Your task to perform on an android device: turn off improve location accuracy Image 0: 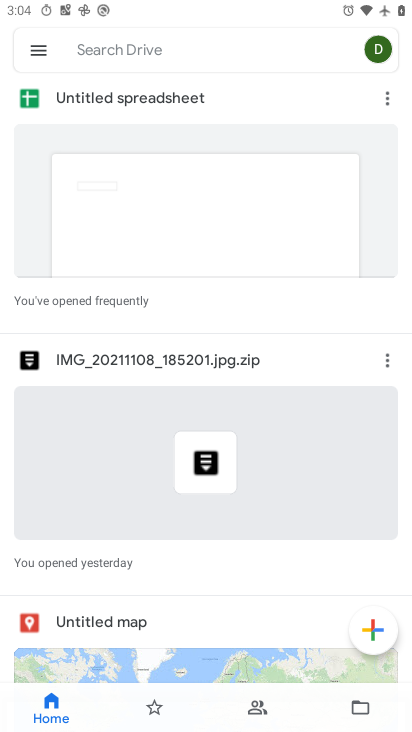
Step 0: press home button
Your task to perform on an android device: turn off improve location accuracy Image 1: 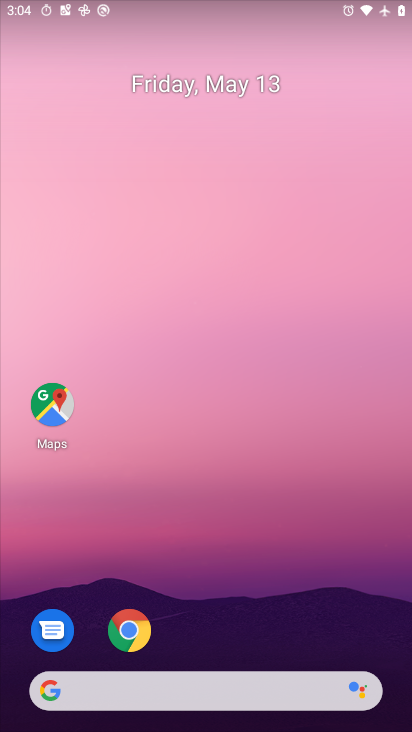
Step 1: drag from (209, 604) to (264, 157)
Your task to perform on an android device: turn off improve location accuracy Image 2: 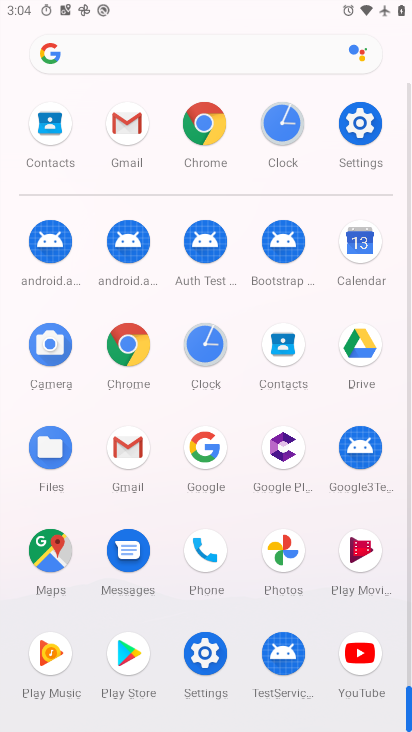
Step 2: click (201, 670)
Your task to perform on an android device: turn off improve location accuracy Image 3: 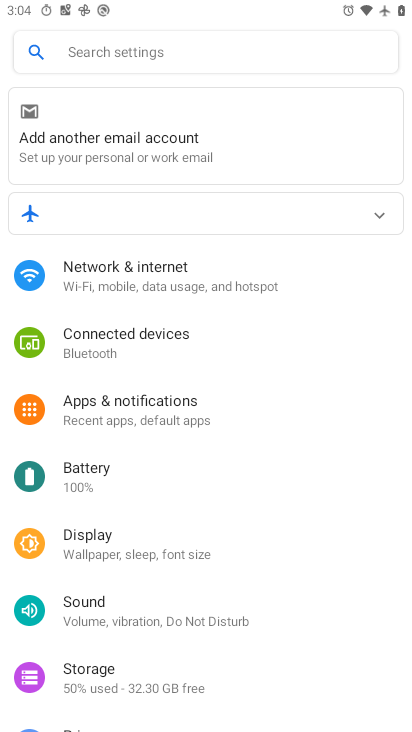
Step 3: drag from (190, 655) to (255, 366)
Your task to perform on an android device: turn off improve location accuracy Image 4: 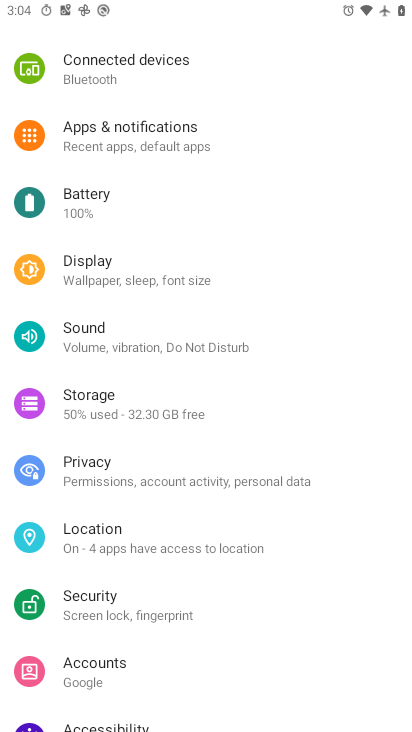
Step 4: click (169, 535)
Your task to perform on an android device: turn off improve location accuracy Image 5: 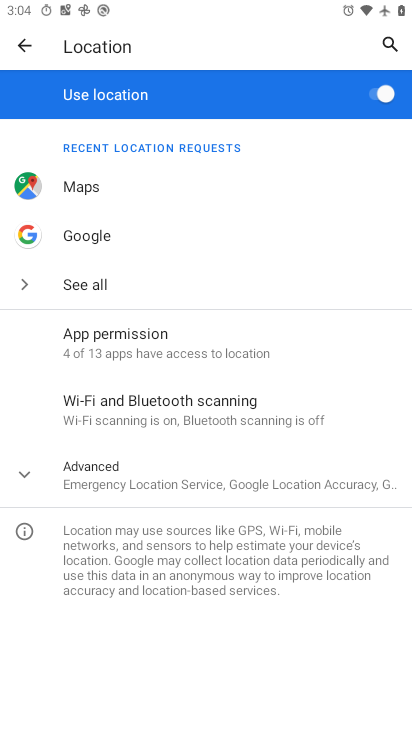
Step 5: click (202, 490)
Your task to perform on an android device: turn off improve location accuracy Image 6: 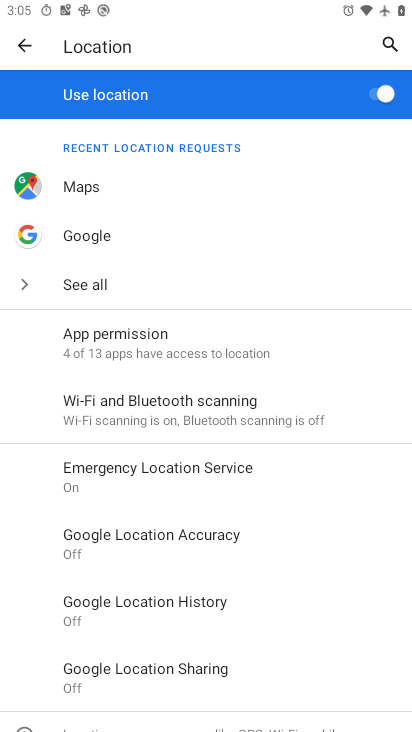
Step 6: click (229, 542)
Your task to perform on an android device: turn off improve location accuracy Image 7: 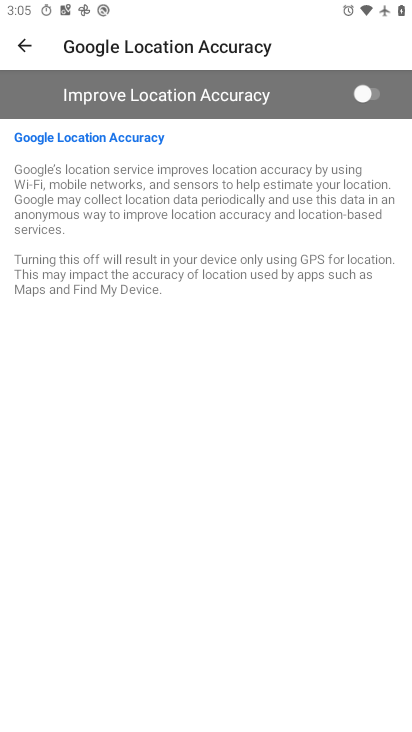
Step 7: task complete